Your task to perform on an android device: Go to calendar. Show me events next week Image 0: 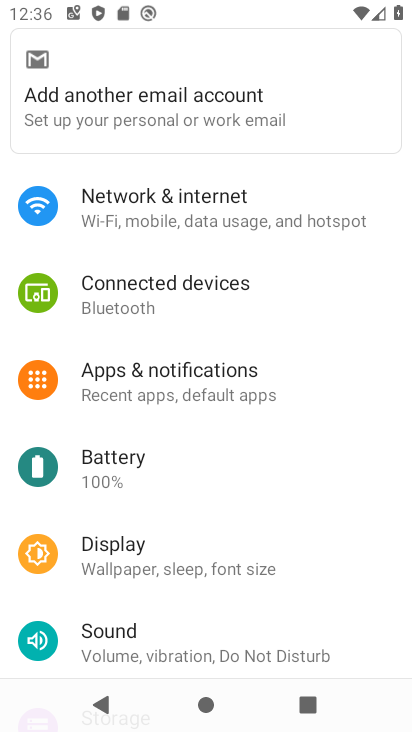
Step 0: press home button
Your task to perform on an android device: Go to calendar. Show me events next week Image 1: 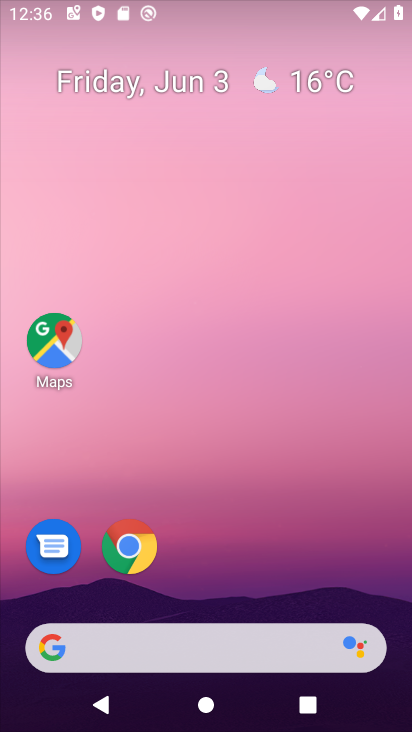
Step 1: drag from (245, 456) to (152, 51)
Your task to perform on an android device: Go to calendar. Show me events next week Image 2: 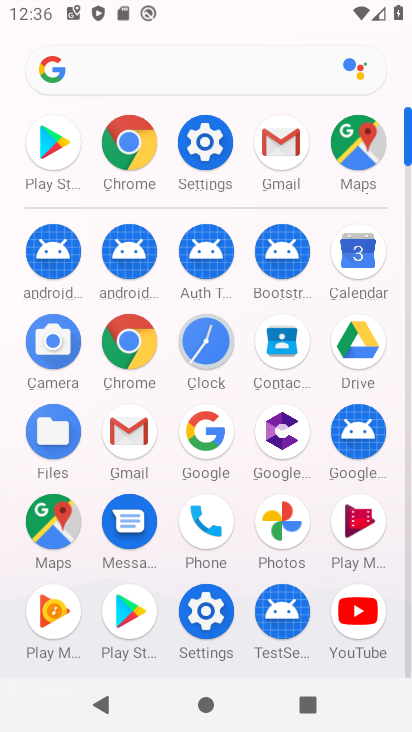
Step 2: click (369, 260)
Your task to perform on an android device: Go to calendar. Show me events next week Image 3: 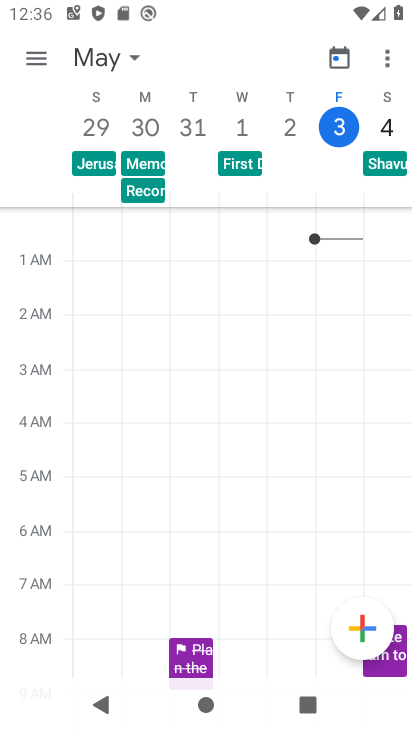
Step 3: click (131, 50)
Your task to perform on an android device: Go to calendar. Show me events next week Image 4: 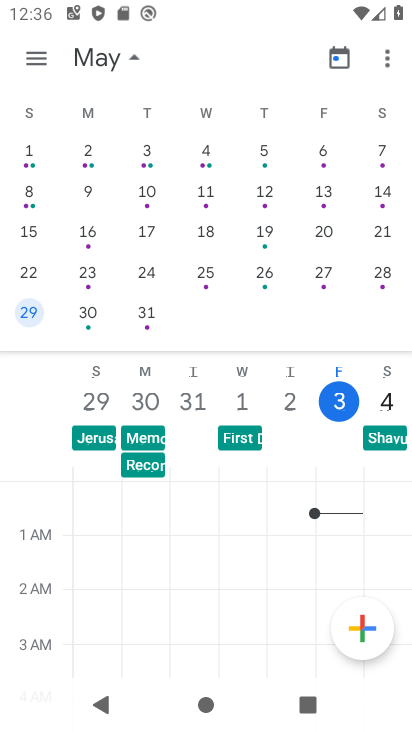
Step 4: drag from (341, 218) to (46, 137)
Your task to perform on an android device: Go to calendar. Show me events next week Image 5: 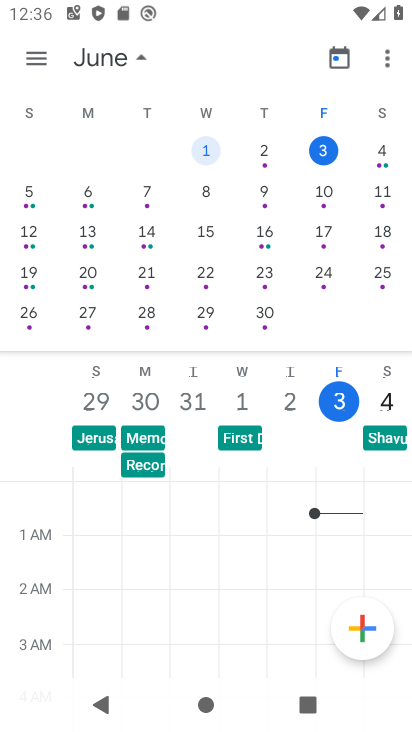
Step 5: click (203, 187)
Your task to perform on an android device: Go to calendar. Show me events next week Image 6: 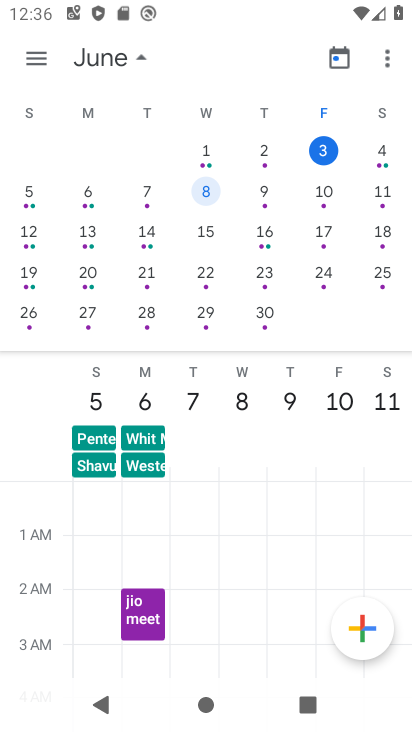
Step 6: task complete